Your task to perform on an android device: uninstall "Firefox Browser" Image 0: 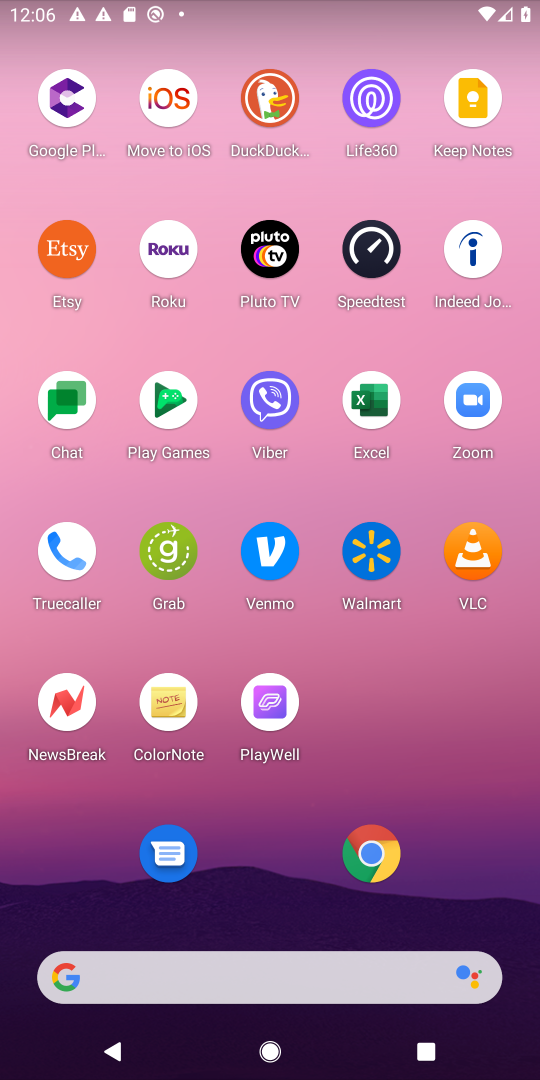
Step 0: drag from (320, 870) to (320, 120)
Your task to perform on an android device: uninstall "Firefox Browser" Image 1: 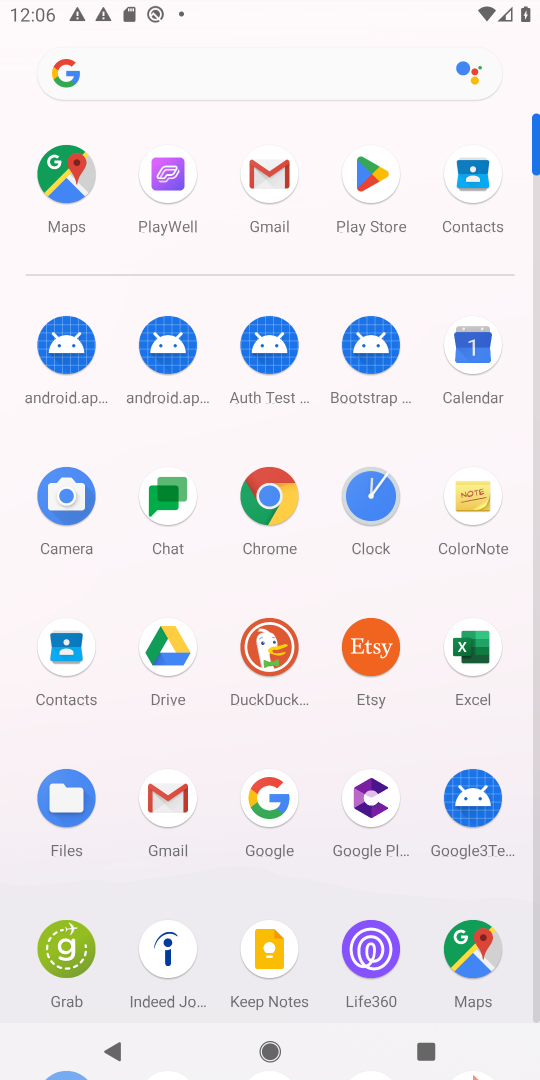
Step 1: click (364, 182)
Your task to perform on an android device: uninstall "Firefox Browser" Image 2: 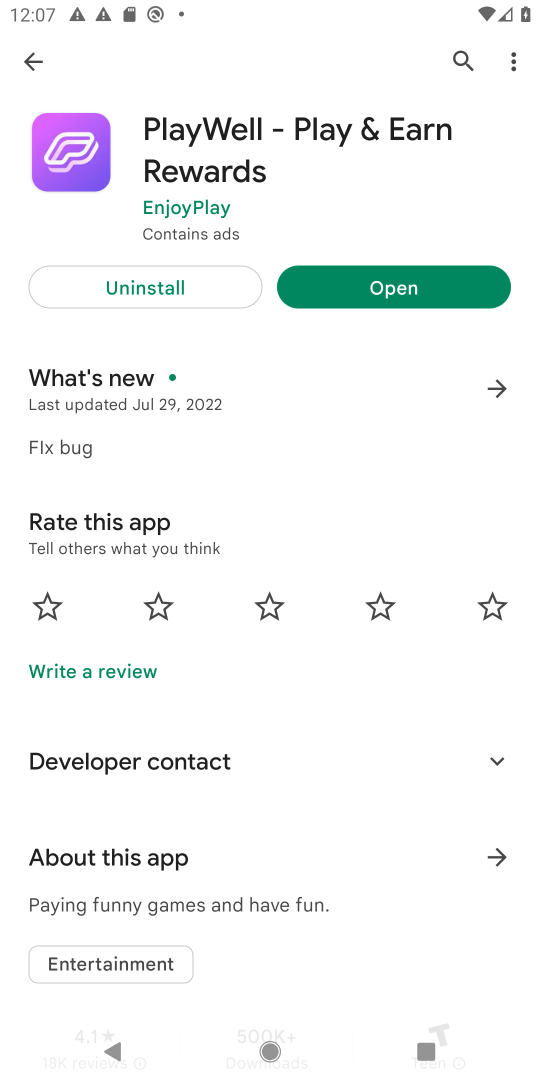
Step 2: click (452, 56)
Your task to perform on an android device: uninstall "Firefox Browser" Image 3: 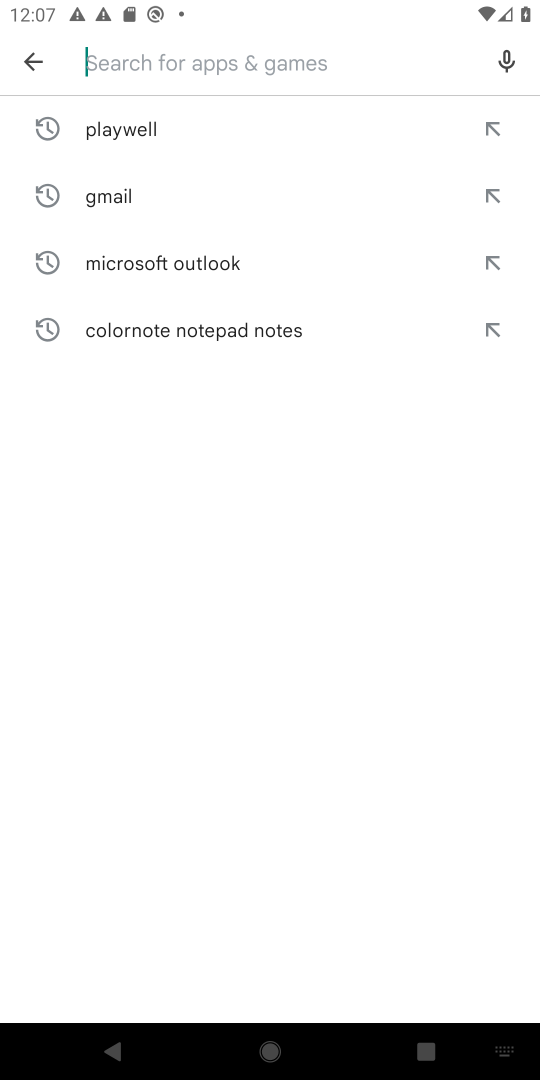
Step 3: type "Firefox Browser"
Your task to perform on an android device: uninstall "Firefox Browser" Image 4: 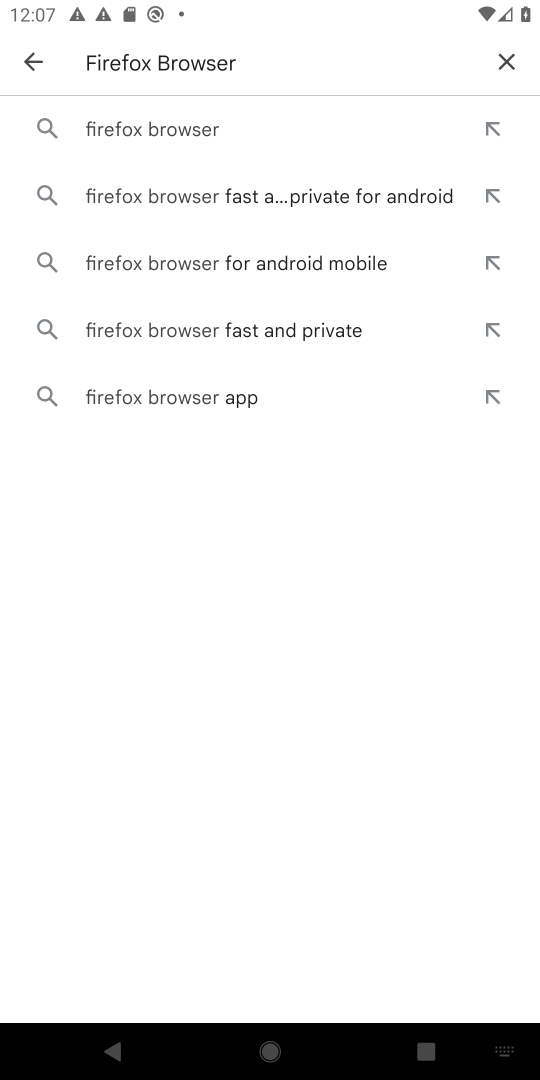
Step 4: click (127, 129)
Your task to perform on an android device: uninstall "Firefox Browser" Image 5: 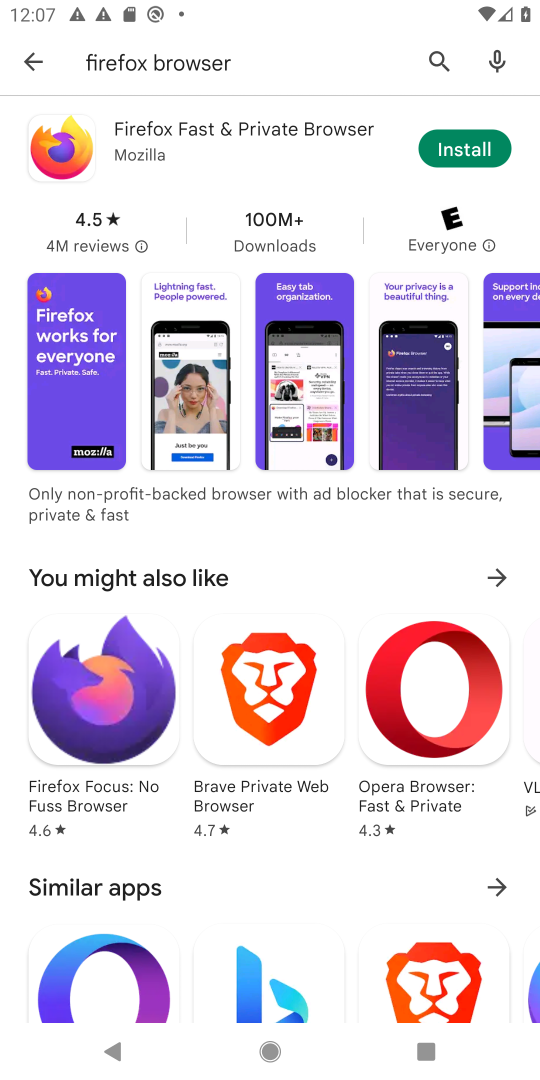
Step 5: click (316, 121)
Your task to perform on an android device: uninstall "Firefox Browser" Image 6: 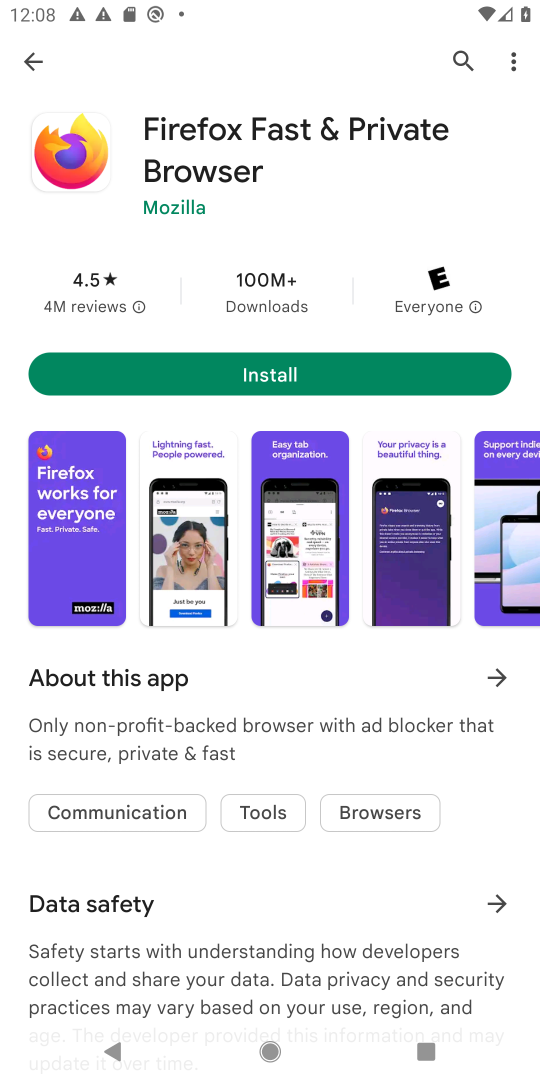
Step 6: task complete